Your task to perform on an android device: add a contact in the contacts app Image 0: 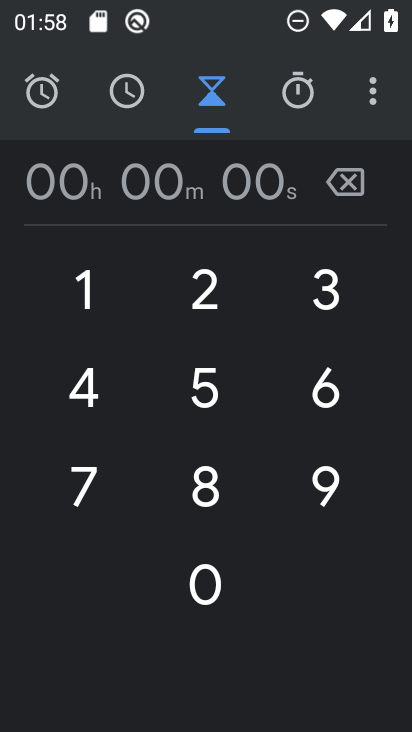
Step 0: press home button
Your task to perform on an android device: add a contact in the contacts app Image 1: 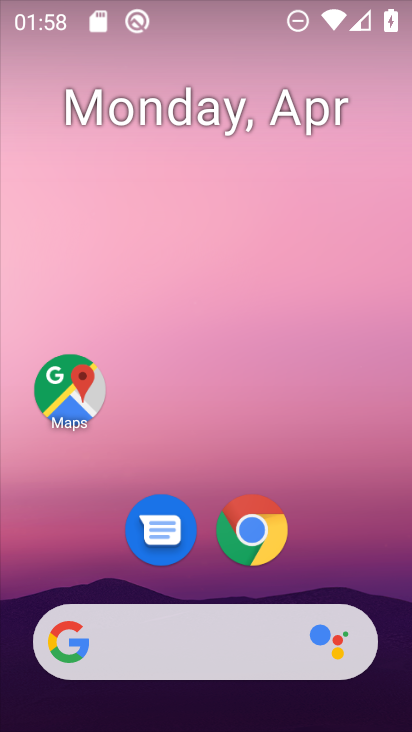
Step 1: drag from (341, 543) to (269, 10)
Your task to perform on an android device: add a contact in the contacts app Image 2: 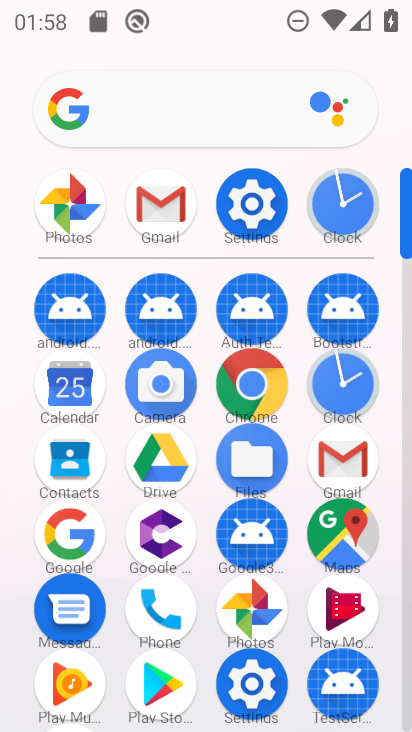
Step 2: click (72, 459)
Your task to perform on an android device: add a contact in the contacts app Image 3: 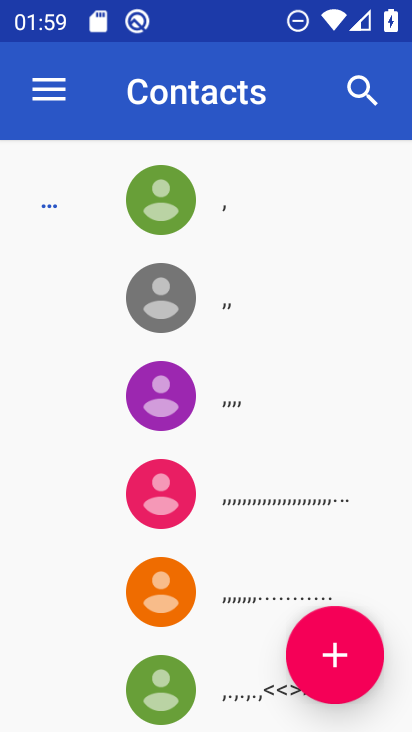
Step 3: click (334, 652)
Your task to perform on an android device: add a contact in the contacts app Image 4: 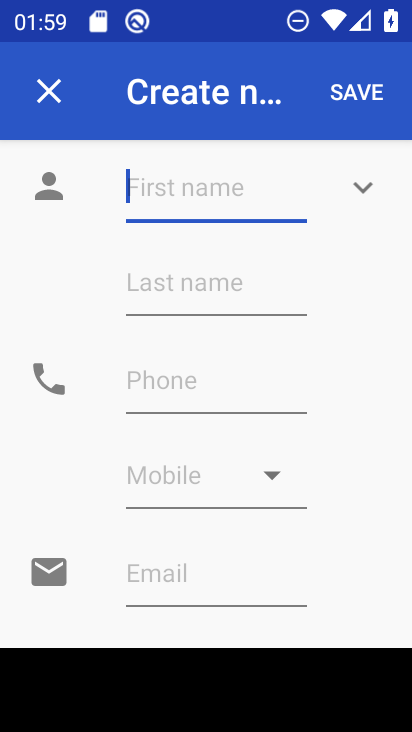
Step 4: click (215, 199)
Your task to perform on an android device: add a contact in the contacts app Image 5: 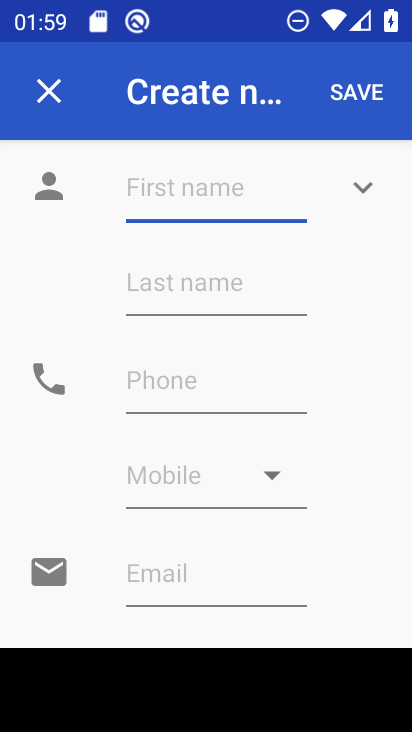
Step 5: type "sdfg"
Your task to perform on an android device: add a contact in the contacts app Image 6: 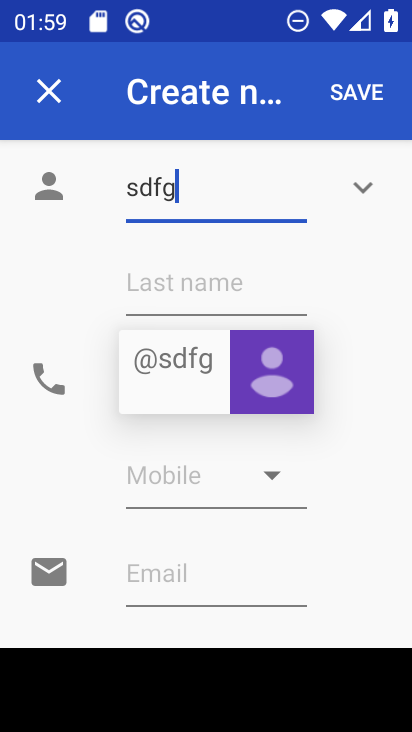
Step 6: click (212, 363)
Your task to perform on an android device: add a contact in the contacts app Image 7: 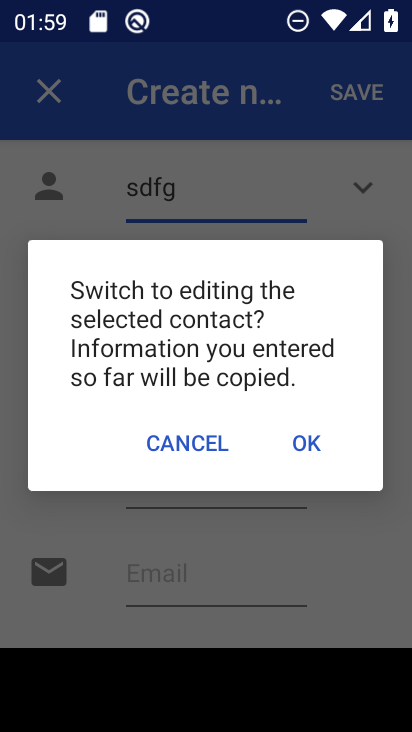
Step 7: click (195, 442)
Your task to perform on an android device: add a contact in the contacts app Image 8: 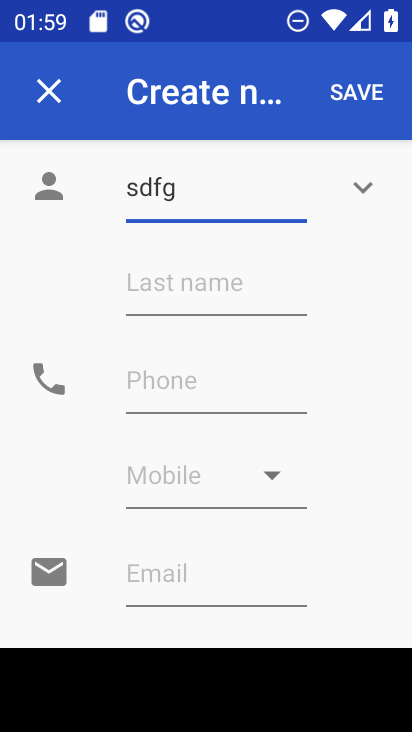
Step 8: click (148, 384)
Your task to perform on an android device: add a contact in the contacts app Image 9: 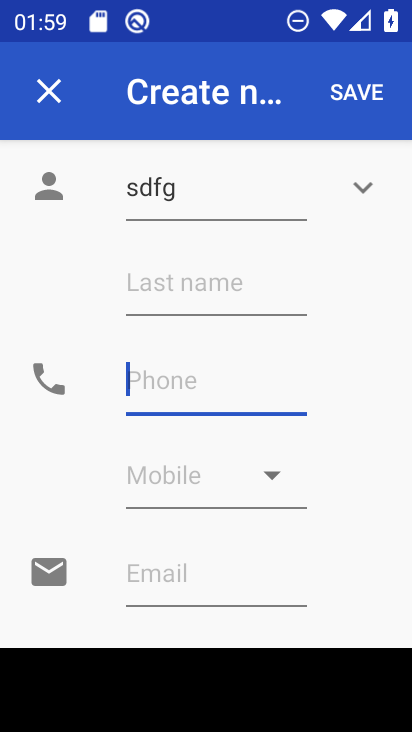
Step 9: type "232456764"
Your task to perform on an android device: add a contact in the contacts app Image 10: 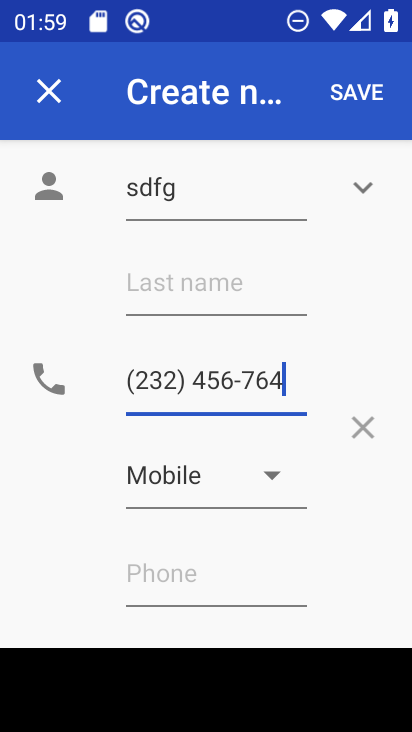
Step 10: click (346, 91)
Your task to perform on an android device: add a contact in the contacts app Image 11: 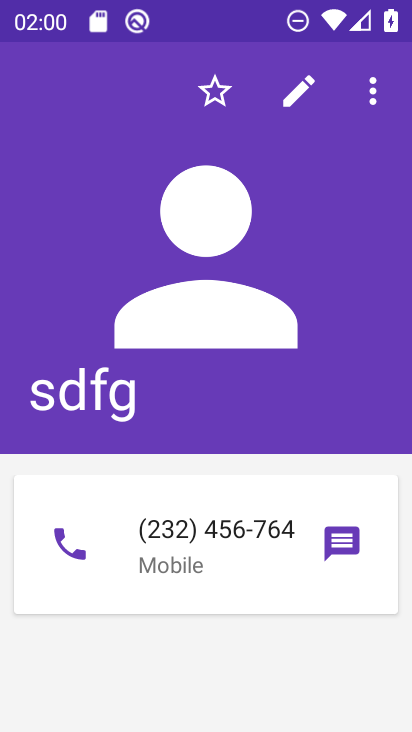
Step 11: task complete